Your task to perform on an android device: see creations saved in the google photos Image 0: 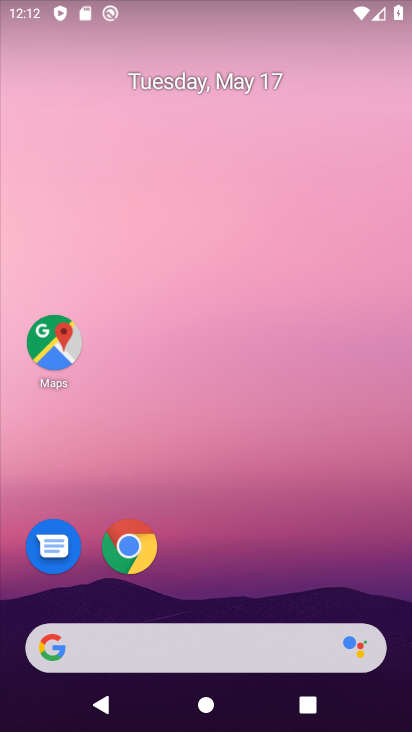
Step 0: drag from (233, 574) to (239, 156)
Your task to perform on an android device: see creations saved in the google photos Image 1: 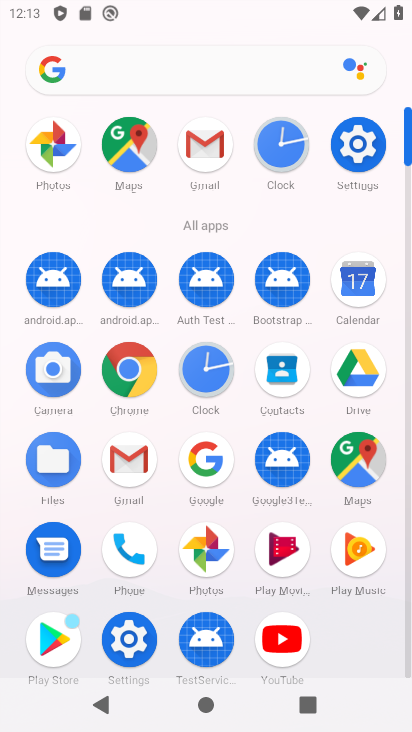
Step 1: click (64, 157)
Your task to perform on an android device: see creations saved in the google photos Image 2: 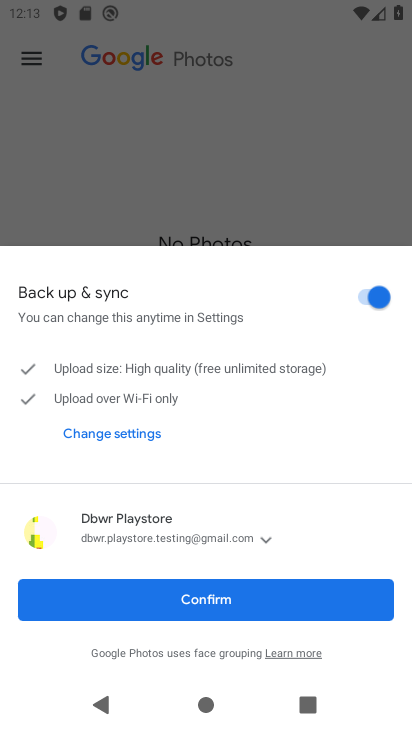
Step 2: click (145, 596)
Your task to perform on an android device: see creations saved in the google photos Image 3: 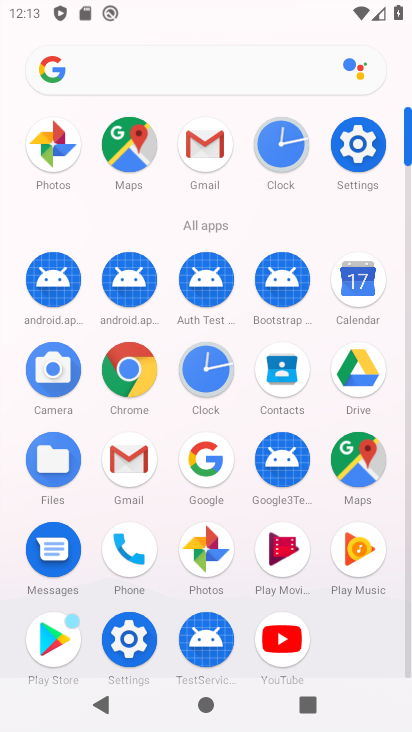
Step 3: click (67, 160)
Your task to perform on an android device: see creations saved in the google photos Image 4: 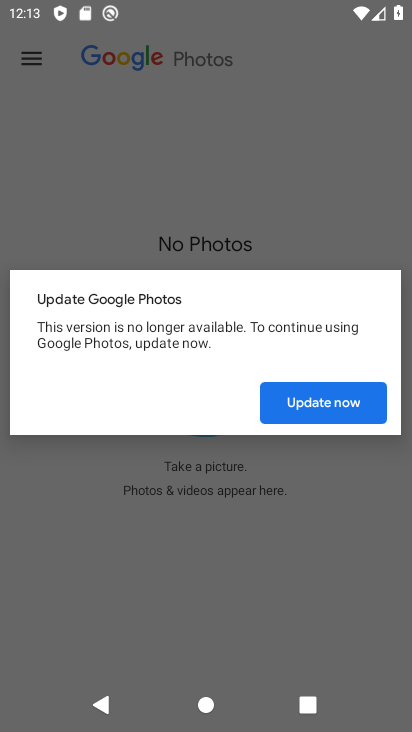
Step 4: click (298, 393)
Your task to perform on an android device: see creations saved in the google photos Image 5: 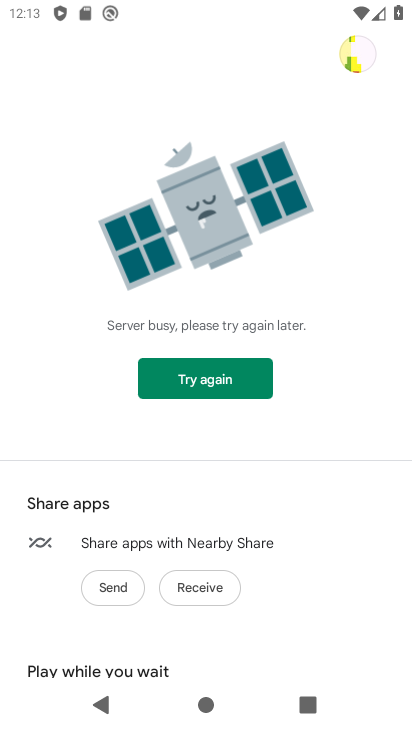
Step 5: press back button
Your task to perform on an android device: see creations saved in the google photos Image 6: 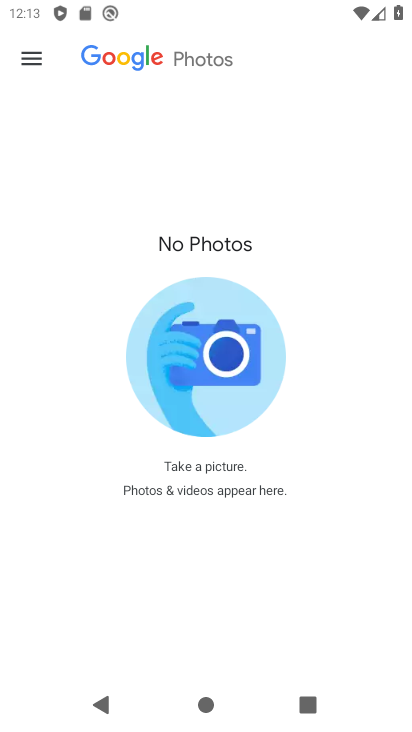
Step 6: click (27, 59)
Your task to perform on an android device: see creations saved in the google photos Image 7: 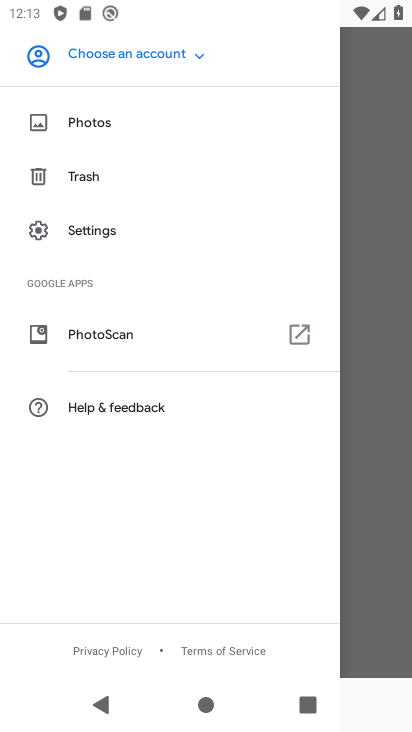
Step 7: click (100, 120)
Your task to perform on an android device: see creations saved in the google photos Image 8: 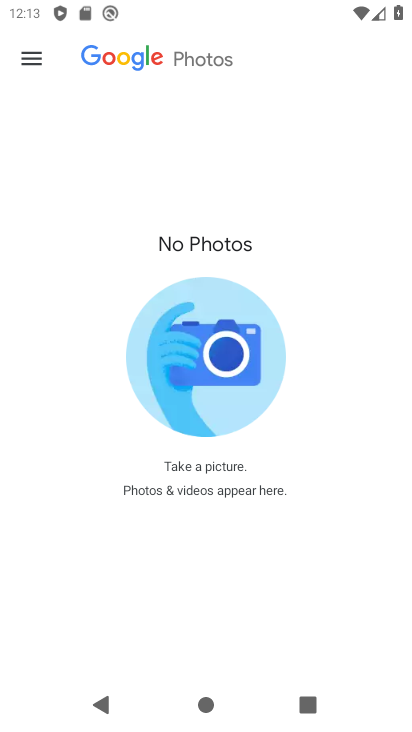
Step 8: task complete